Your task to perform on an android device: Open a new tab in Chrome Image 0: 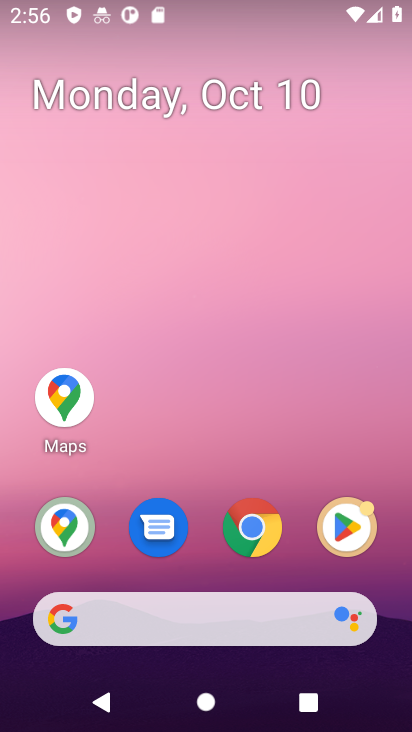
Step 0: click (254, 529)
Your task to perform on an android device: Open a new tab in Chrome Image 1: 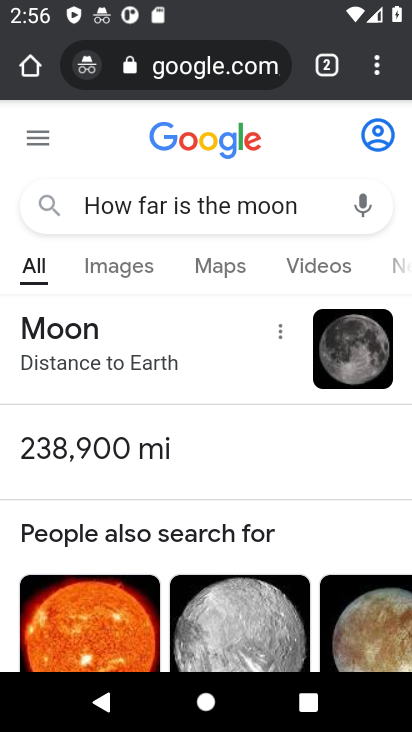
Step 1: click (377, 71)
Your task to perform on an android device: Open a new tab in Chrome Image 2: 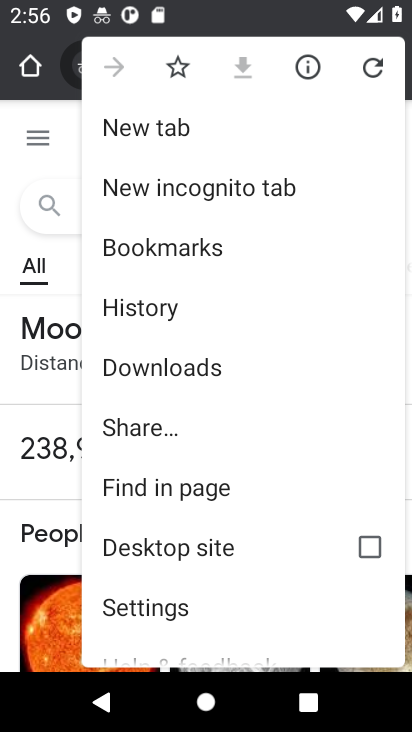
Step 2: click (147, 134)
Your task to perform on an android device: Open a new tab in Chrome Image 3: 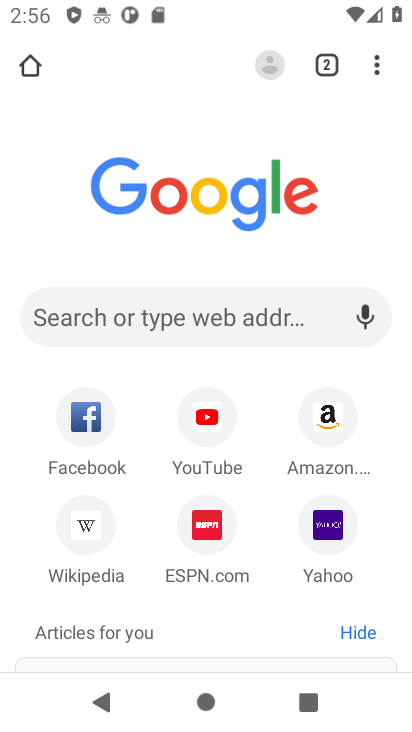
Step 3: task complete